Your task to perform on an android device: Search for jbl flip 4 on target, select the first entry, add it to the cart, then select checkout. Image 0: 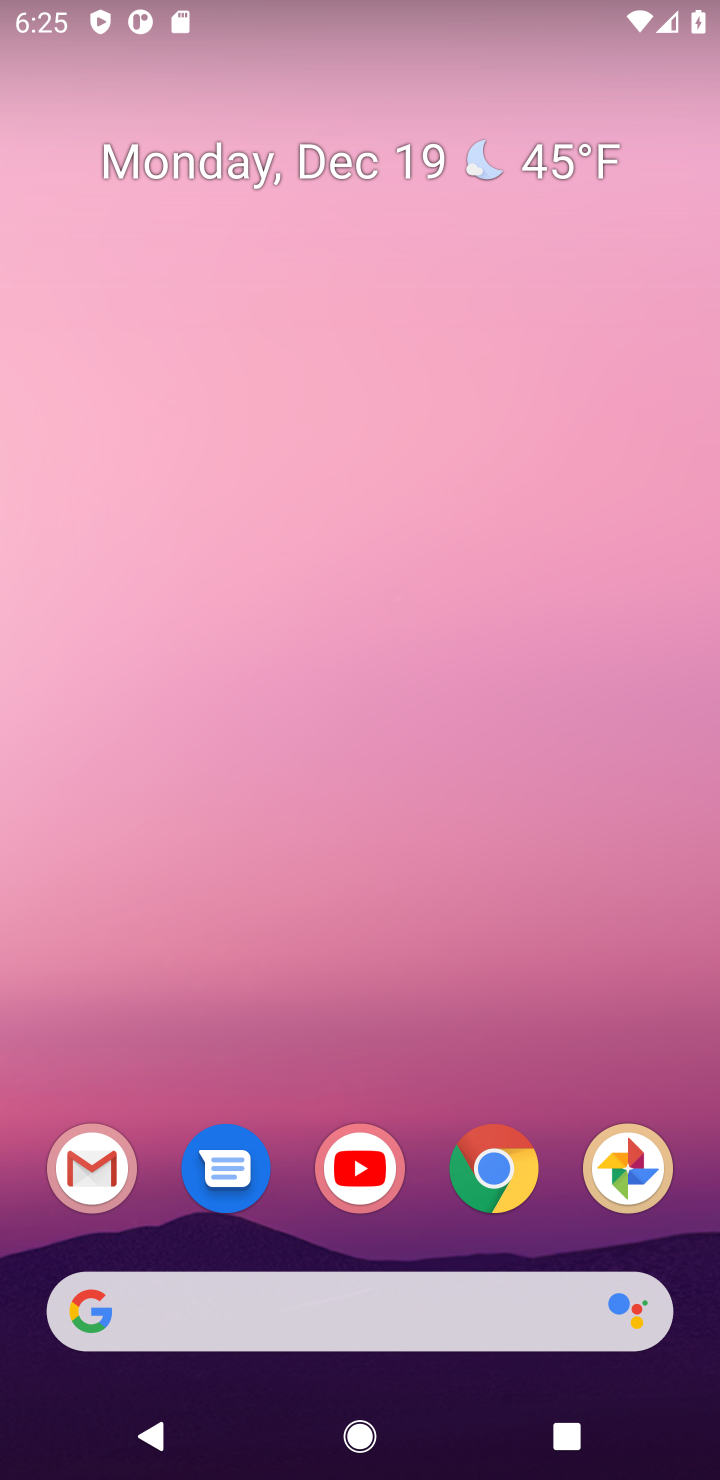
Step 0: click (522, 1170)
Your task to perform on an android device: Search for jbl flip 4 on target, select the first entry, add it to the cart, then select checkout. Image 1: 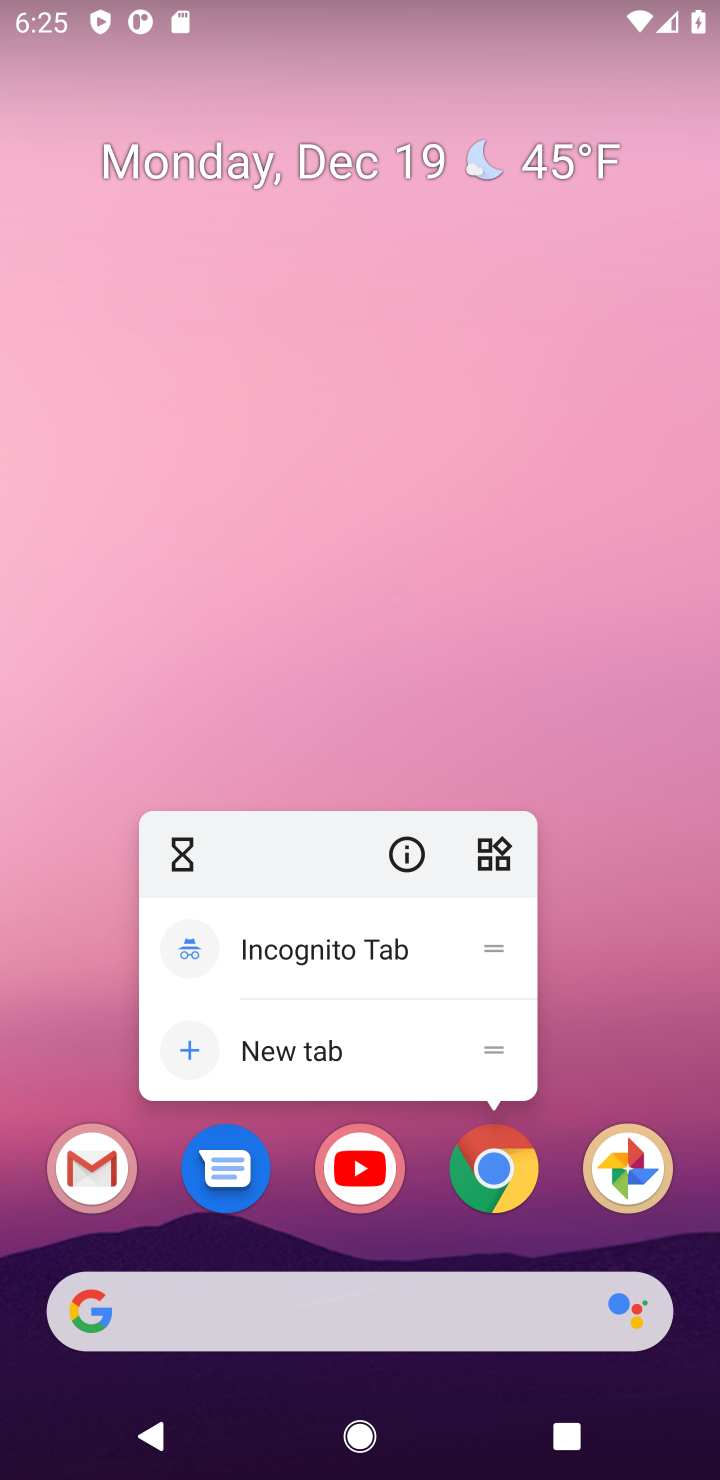
Step 1: click (500, 1186)
Your task to perform on an android device: Search for jbl flip 4 on target, select the first entry, add it to the cart, then select checkout. Image 2: 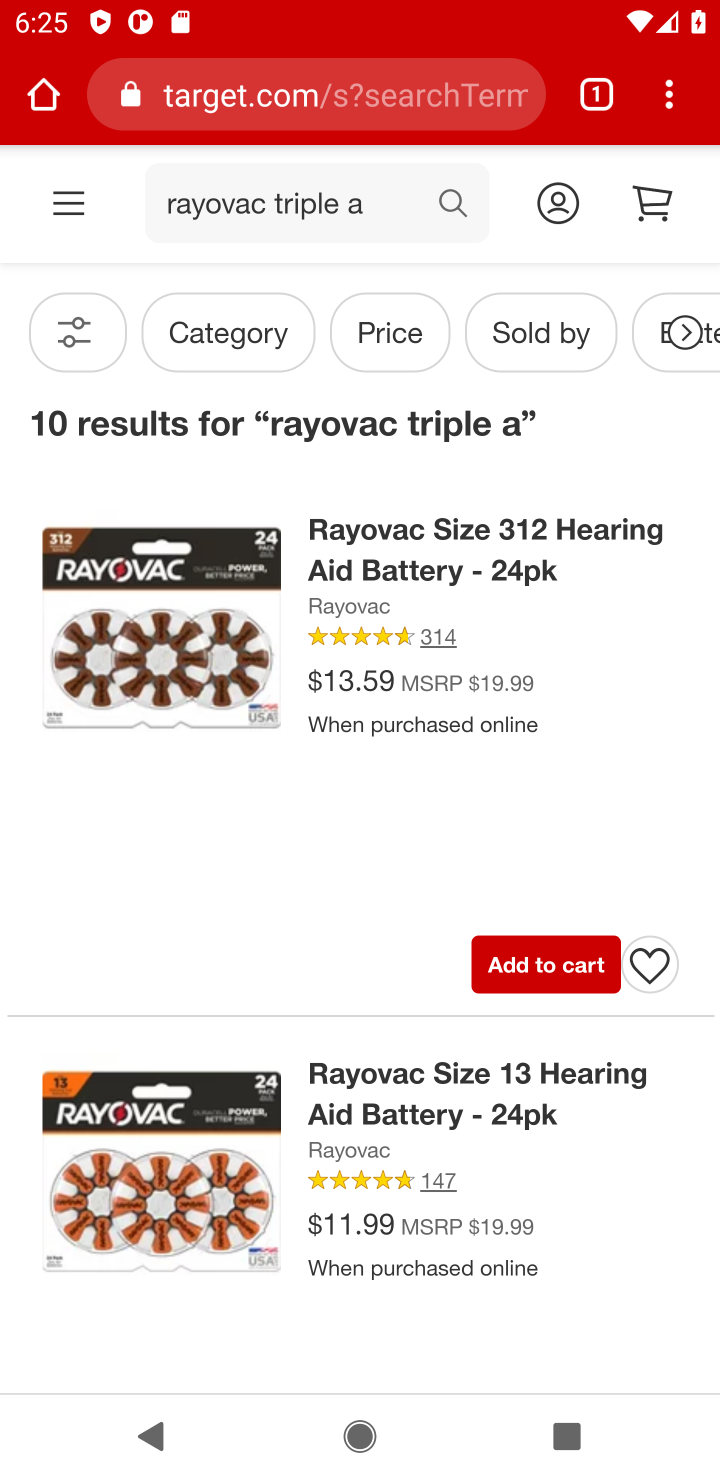
Step 2: click (253, 199)
Your task to perform on an android device: Search for jbl flip 4 on target, select the first entry, add it to the cart, then select checkout. Image 3: 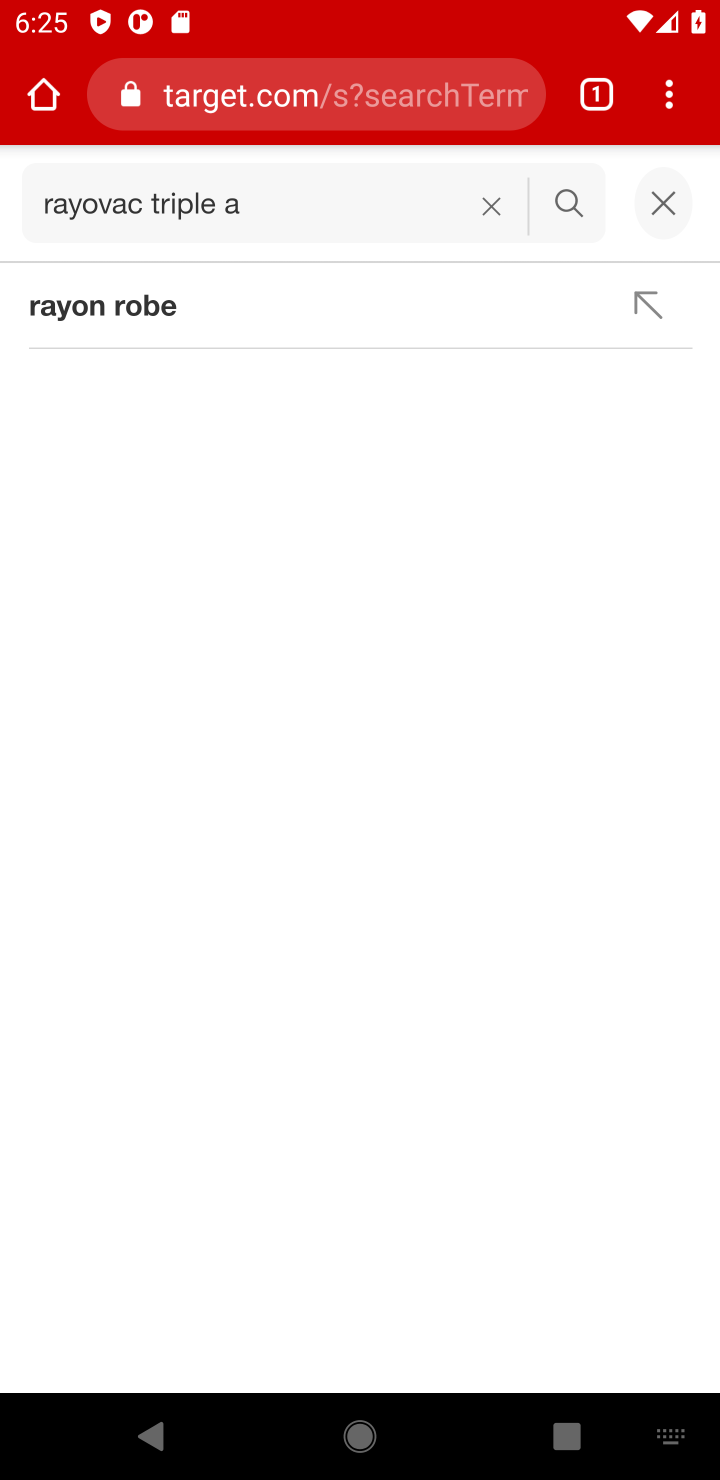
Step 3: click (485, 210)
Your task to perform on an android device: Search for jbl flip 4 on target, select the first entry, add it to the cart, then select checkout. Image 4: 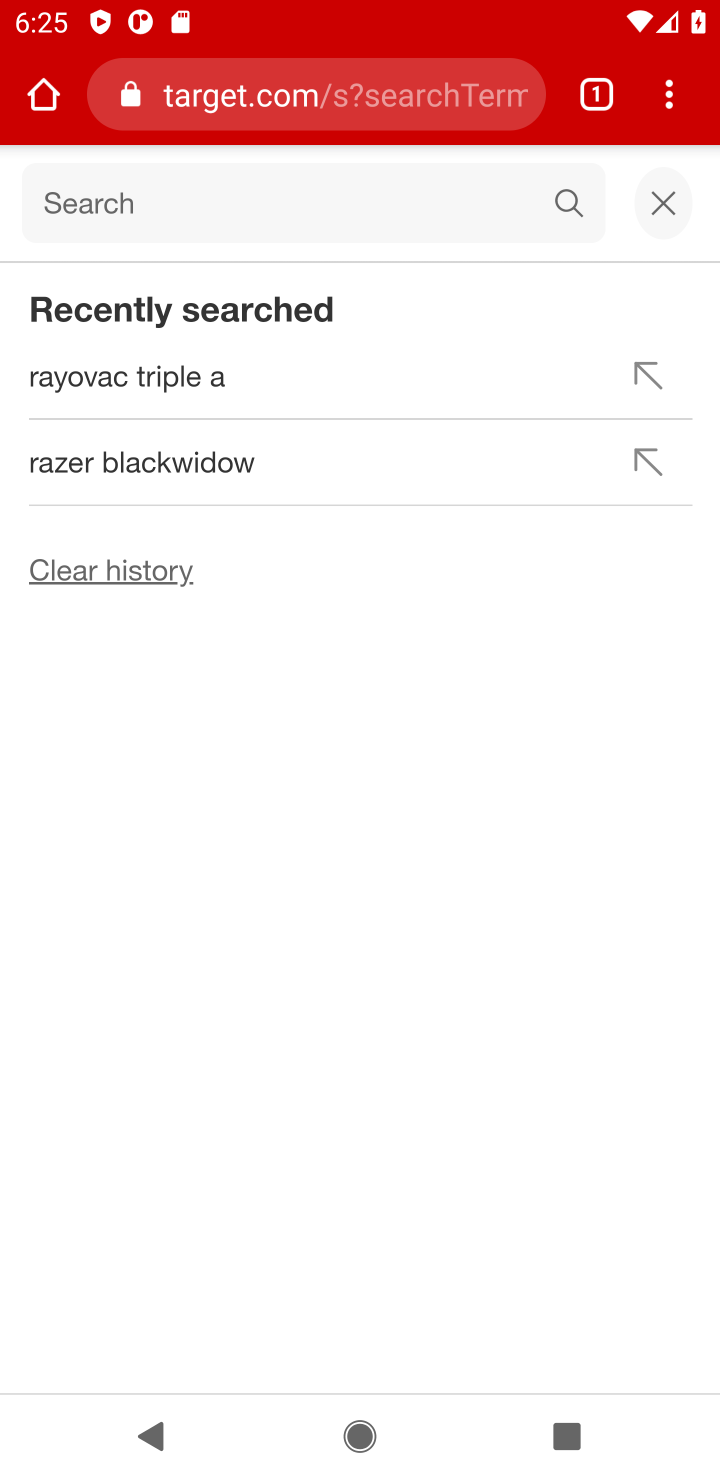
Step 4: type "jbl flip 4"
Your task to perform on an android device: Search for jbl flip 4 on target, select the first entry, add it to the cart, then select checkout. Image 5: 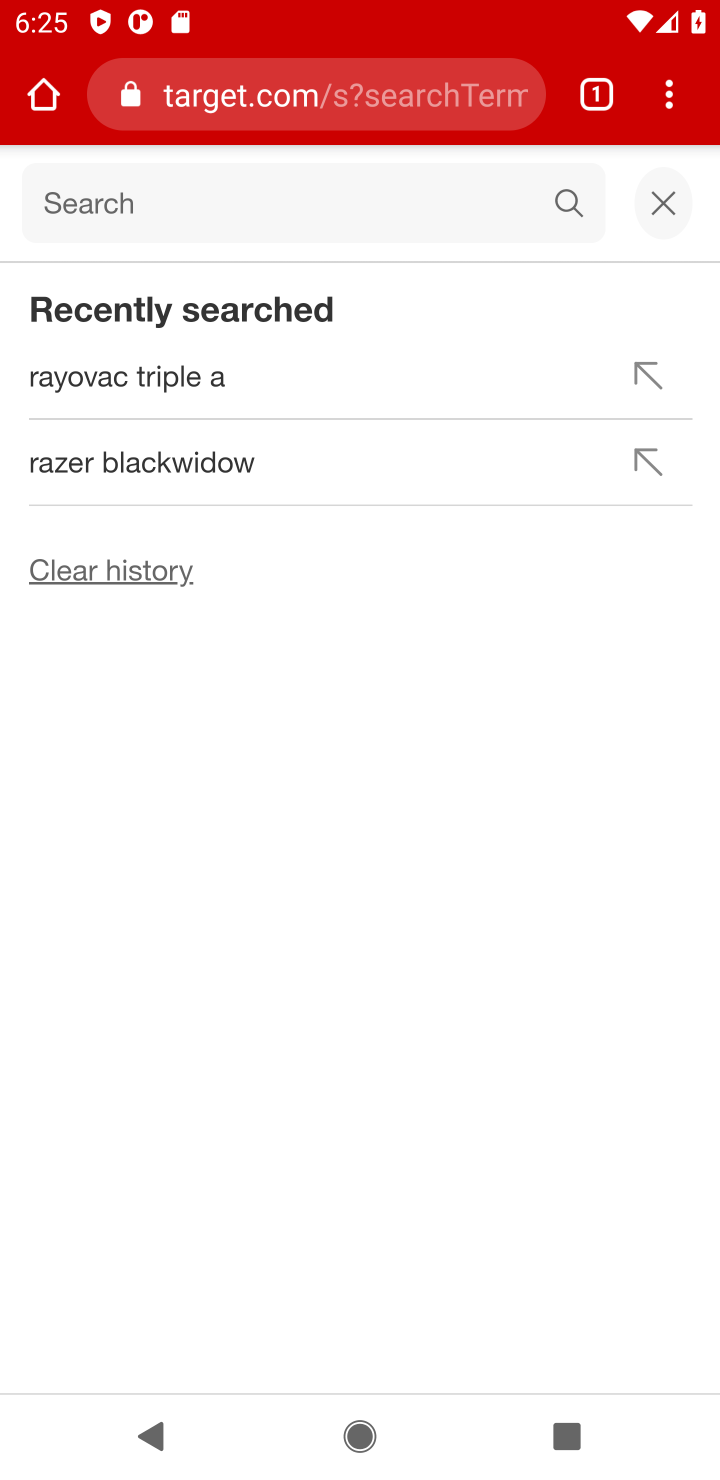
Step 5: click (91, 209)
Your task to perform on an android device: Search for jbl flip 4 on target, select the first entry, add it to the cart, then select checkout. Image 6: 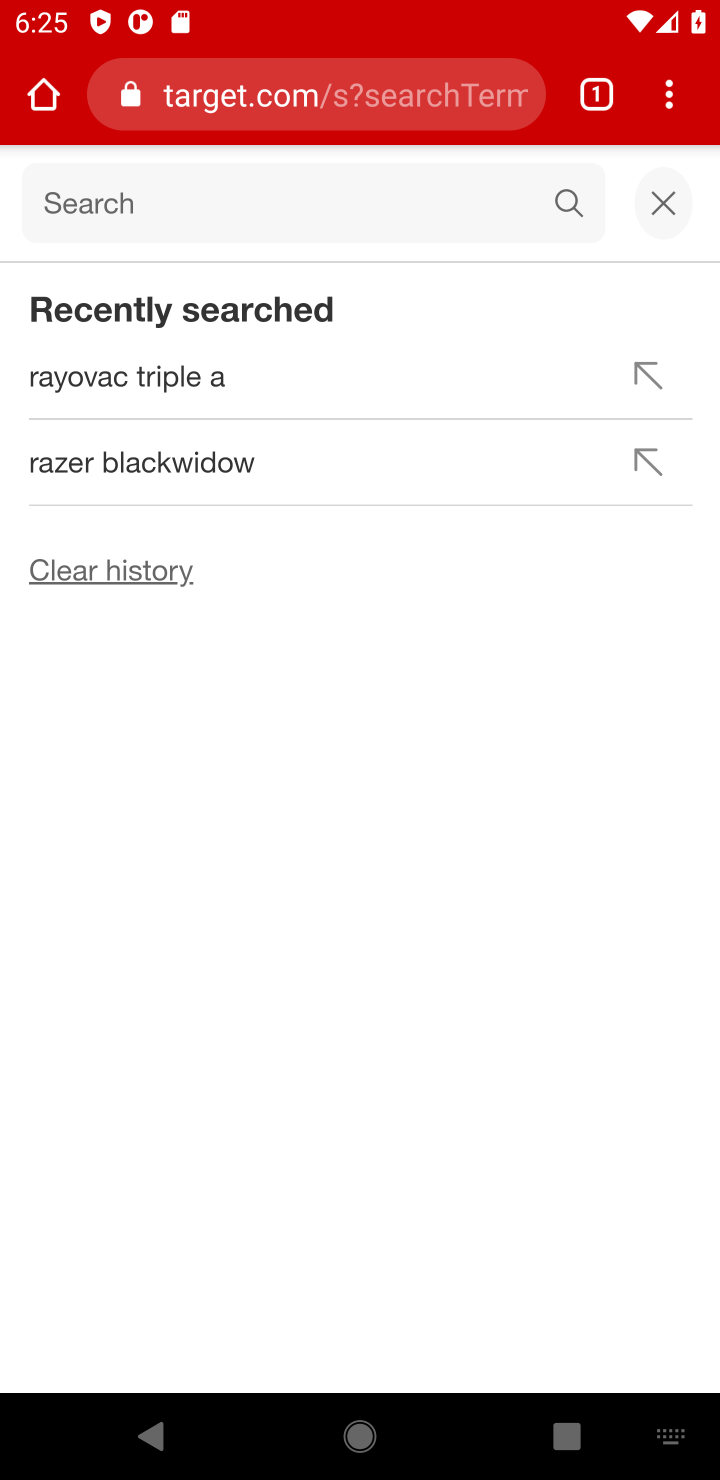
Step 6: type "jbl flip 4"
Your task to perform on an android device: Search for jbl flip 4 on target, select the first entry, add it to the cart, then select checkout. Image 7: 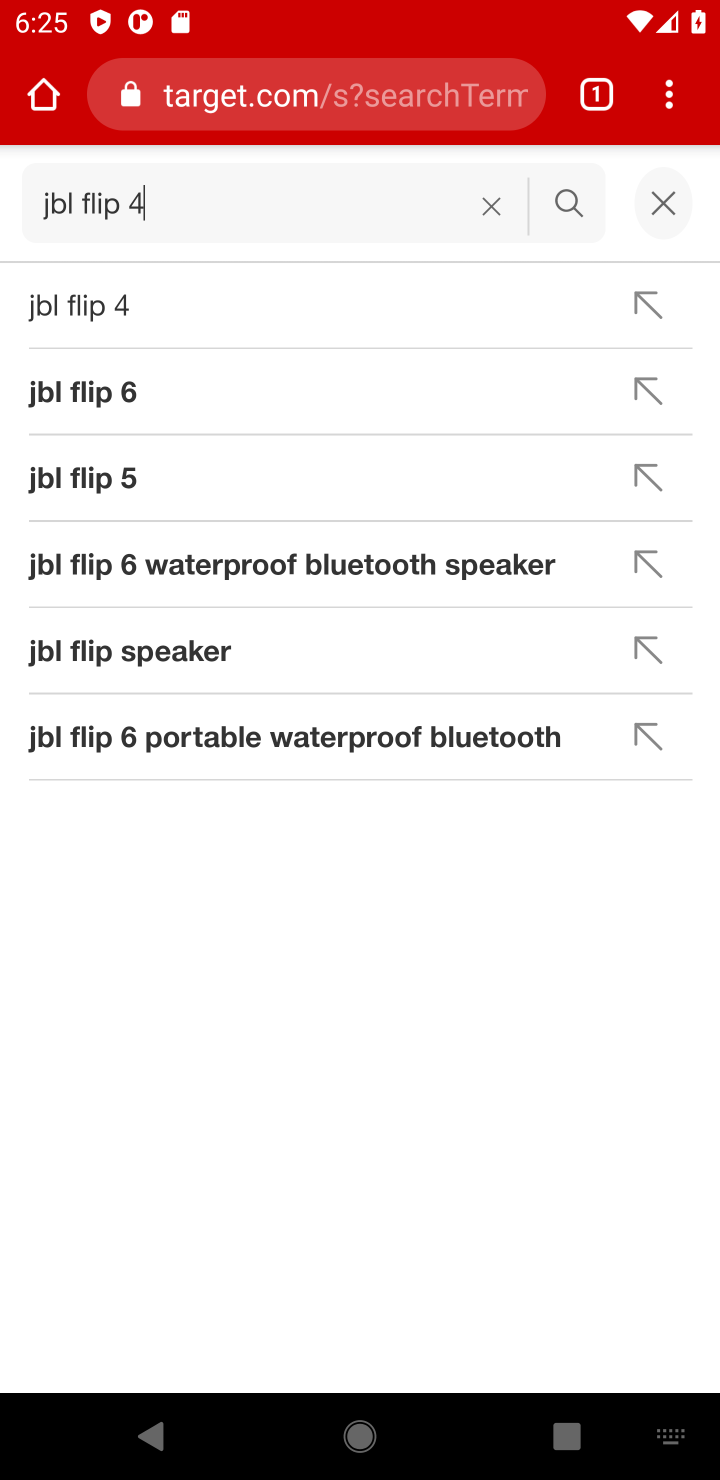
Step 7: click (99, 316)
Your task to perform on an android device: Search for jbl flip 4 on target, select the first entry, add it to the cart, then select checkout. Image 8: 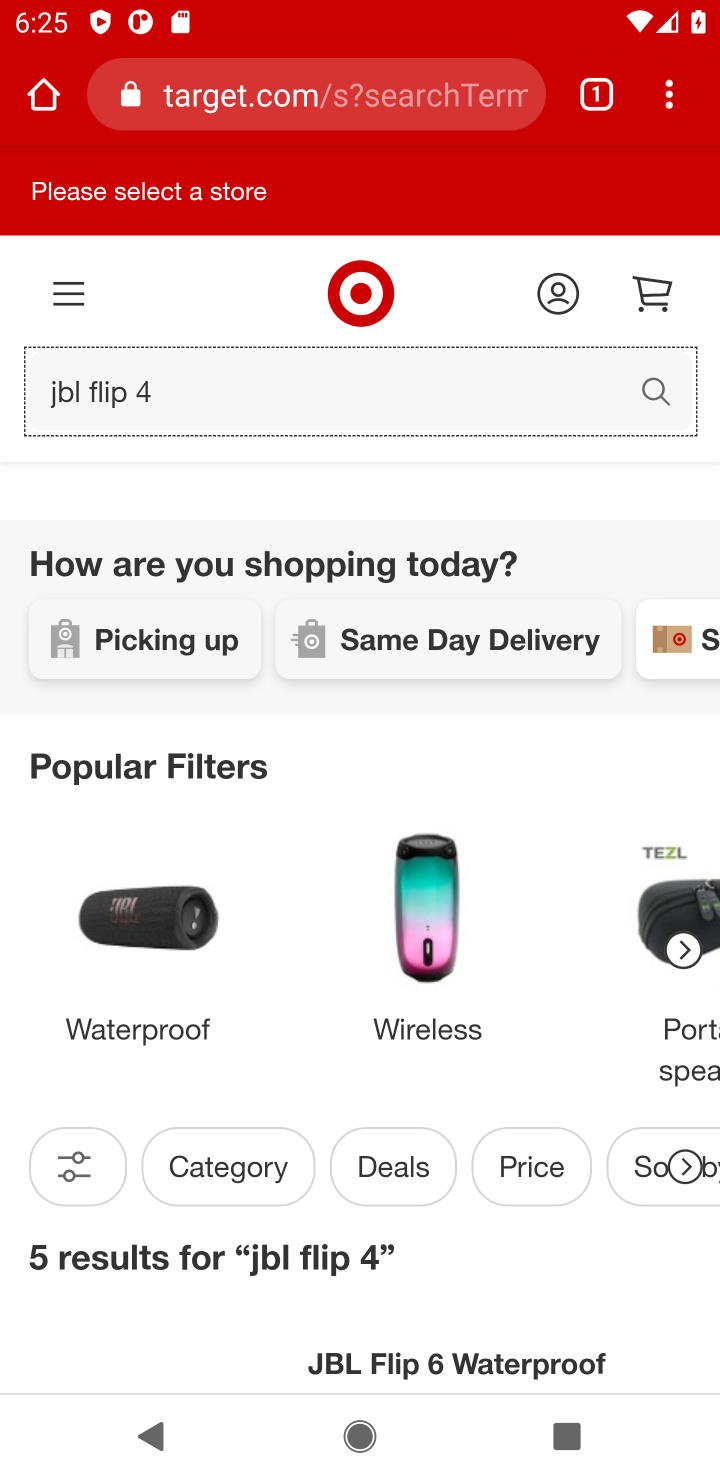
Step 8: task complete